Your task to perform on an android device: Go to sound settings Image 0: 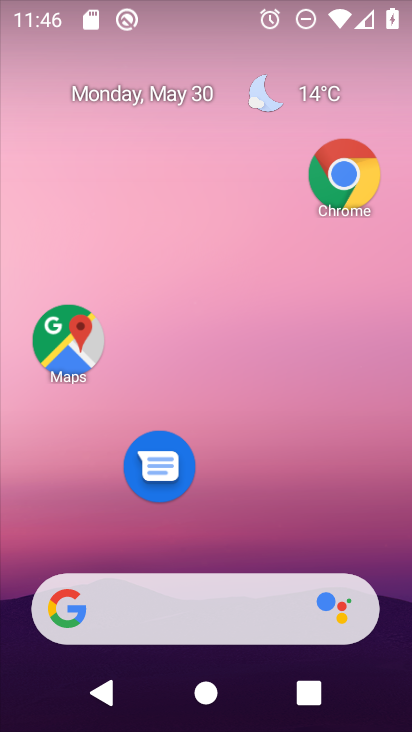
Step 0: drag from (260, 499) to (184, 156)
Your task to perform on an android device: Go to sound settings Image 1: 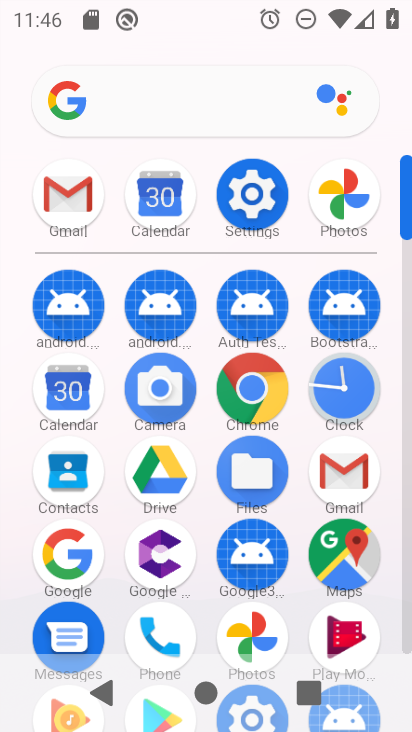
Step 1: click (246, 207)
Your task to perform on an android device: Go to sound settings Image 2: 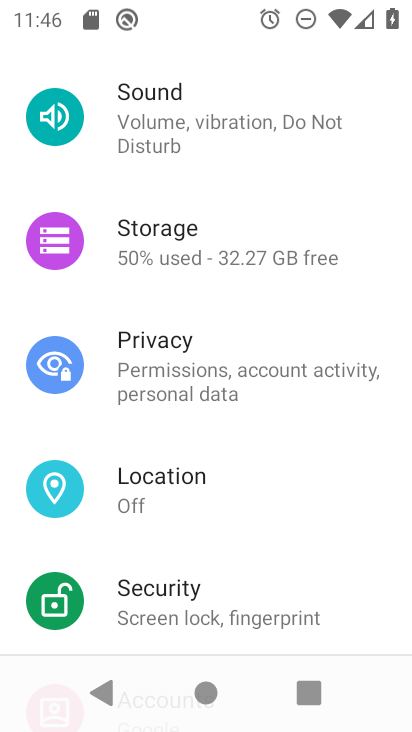
Step 2: click (217, 149)
Your task to perform on an android device: Go to sound settings Image 3: 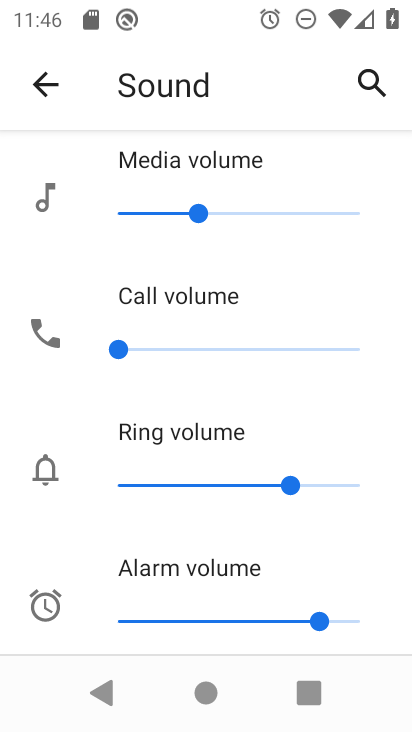
Step 3: task complete